Your task to perform on an android device: toggle sleep mode Image 0: 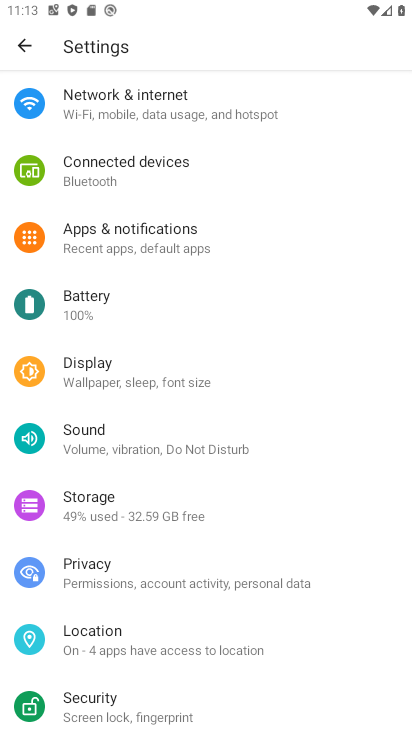
Step 0: press back button
Your task to perform on an android device: toggle sleep mode Image 1: 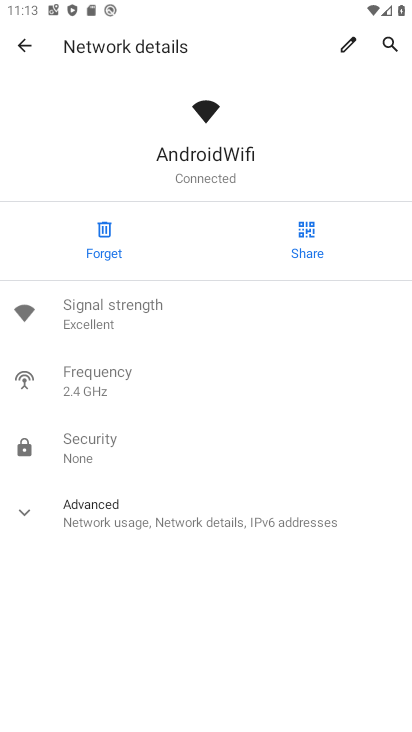
Step 1: press home button
Your task to perform on an android device: toggle sleep mode Image 2: 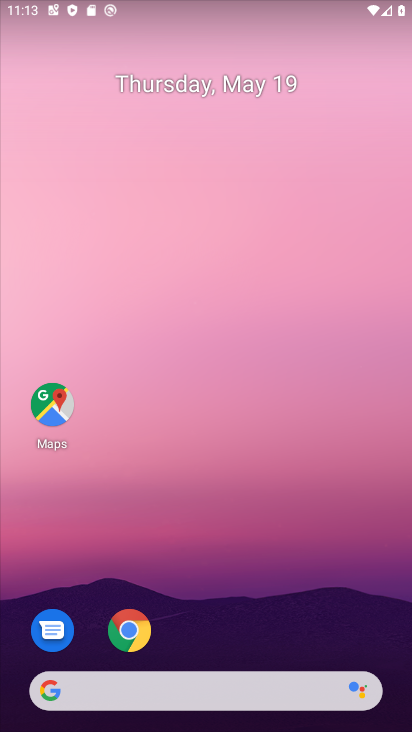
Step 2: drag from (207, 554) to (186, 147)
Your task to perform on an android device: toggle sleep mode Image 3: 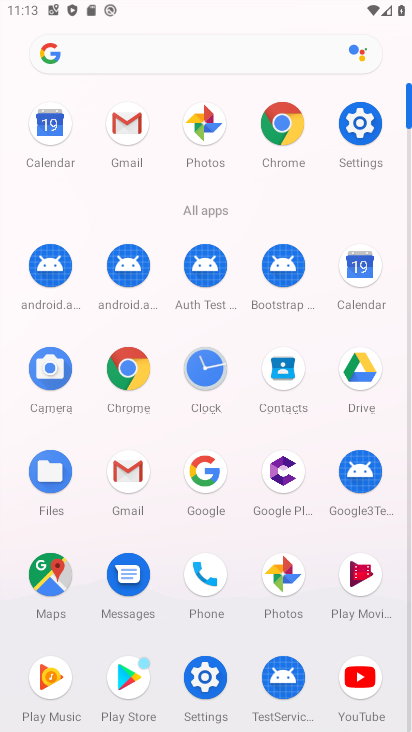
Step 3: click (359, 123)
Your task to perform on an android device: toggle sleep mode Image 4: 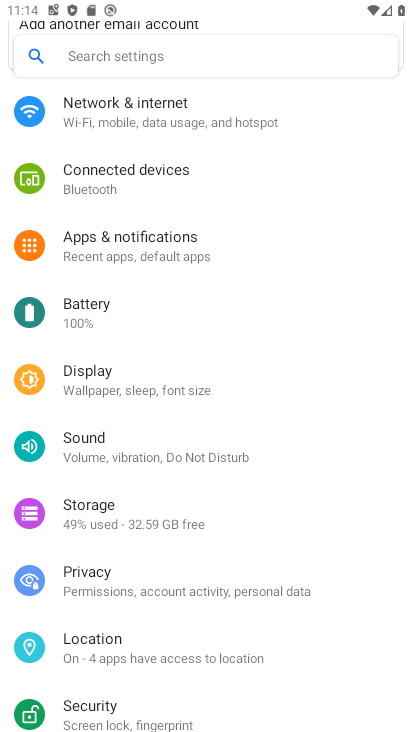
Step 4: click (151, 387)
Your task to perform on an android device: toggle sleep mode Image 5: 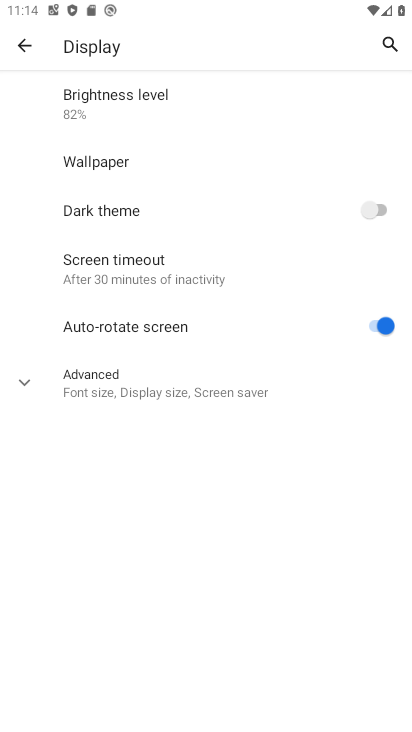
Step 5: click (145, 284)
Your task to perform on an android device: toggle sleep mode Image 6: 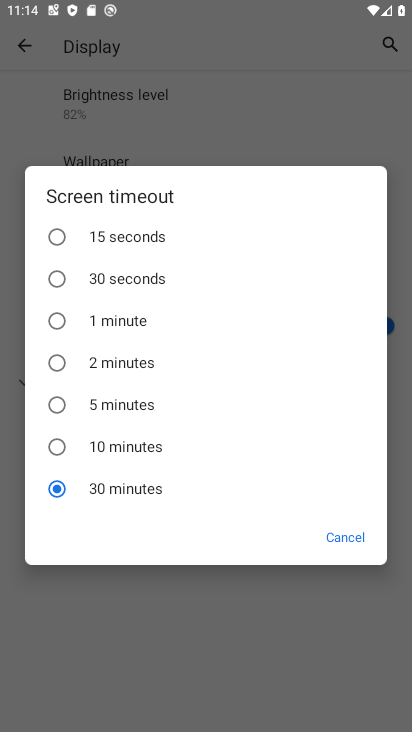
Step 6: click (347, 529)
Your task to perform on an android device: toggle sleep mode Image 7: 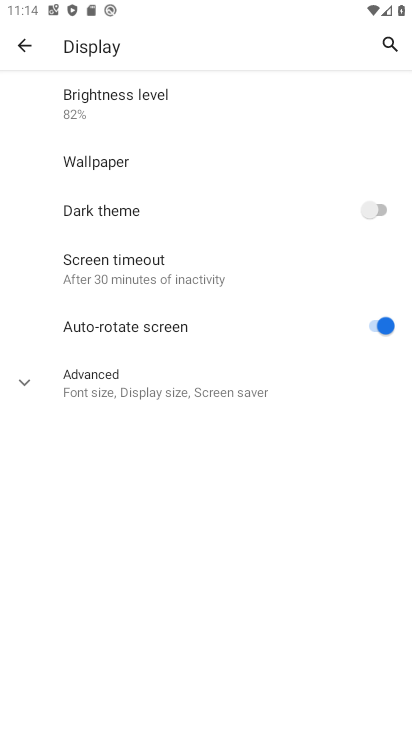
Step 7: task complete